Your task to perform on an android device: Open Amazon Image 0: 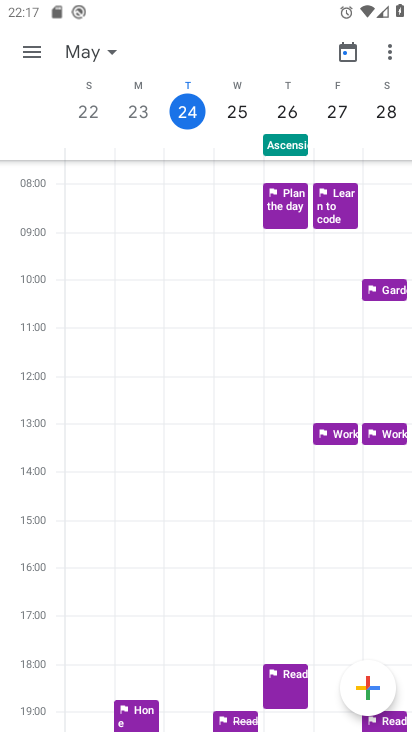
Step 0: press home button
Your task to perform on an android device: Open Amazon Image 1: 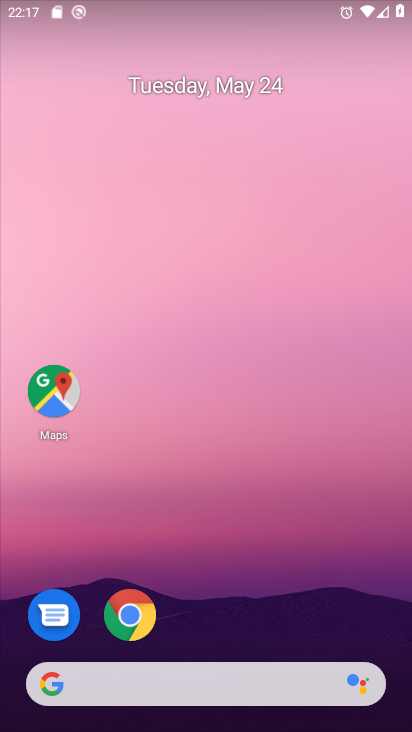
Step 1: click (164, 622)
Your task to perform on an android device: Open Amazon Image 2: 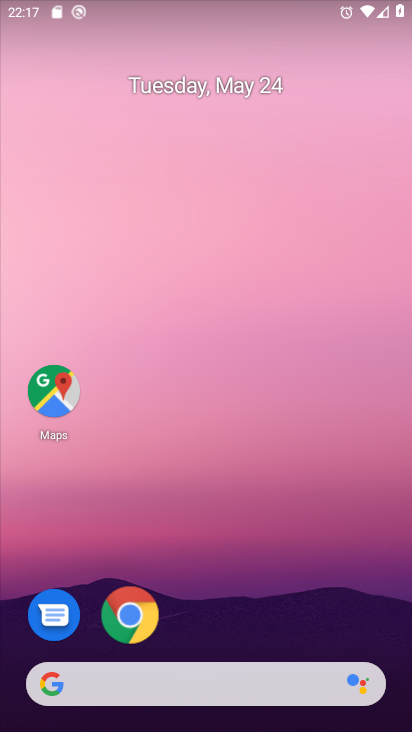
Step 2: drag from (184, 574) to (231, 433)
Your task to perform on an android device: Open Amazon Image 3: 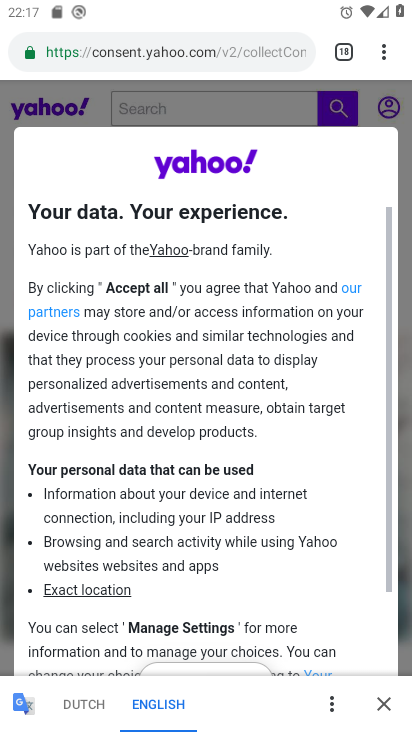
Step 3: click (373, 49)
Your task to perform on an android device: Open Amazon Image 4: 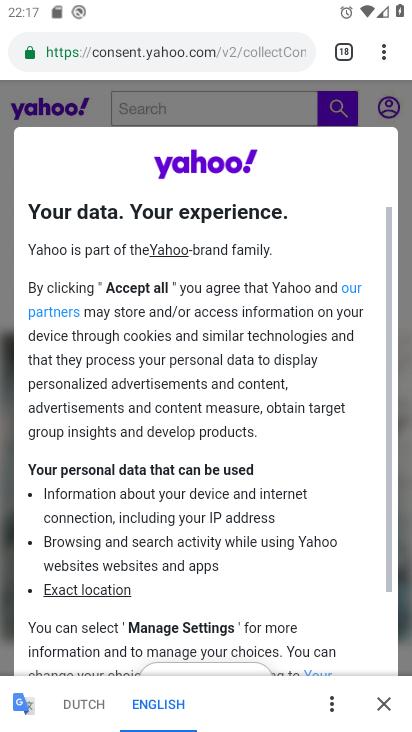
Step 4: click (377, 47)
Your task to perform on an android device: Open Amazon Image 5: 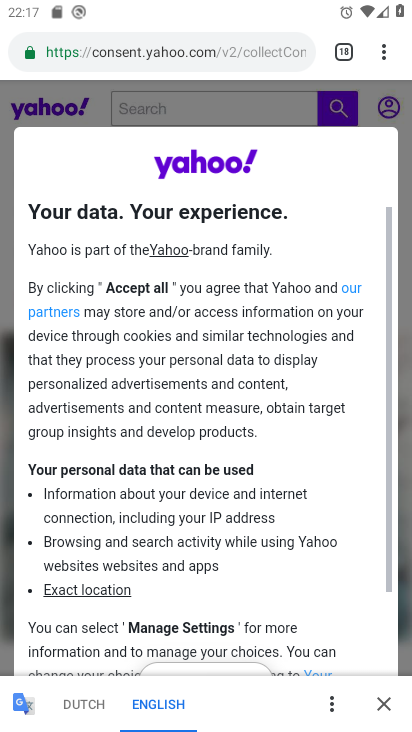
Step 5: click (380, 53)
Your task to perform on an android device: Open Amazon Image 6: 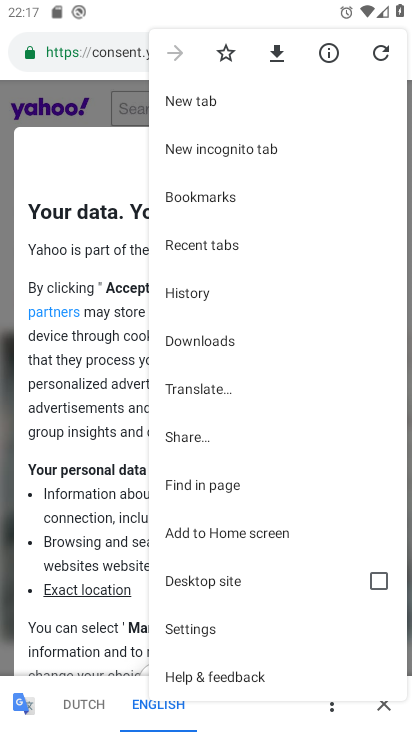
Step 6: click (238, 107)
Your task to perform on an android device: Open Amazon Image 7: 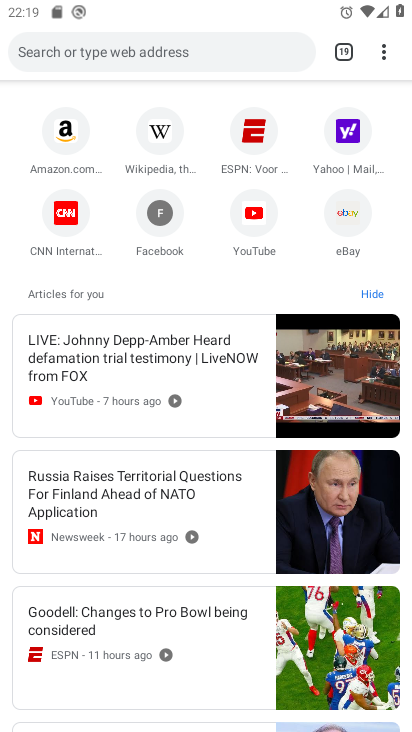
Step 7: click (70, 129)
Your task to perform on an android device: Open Amazon Image 8: 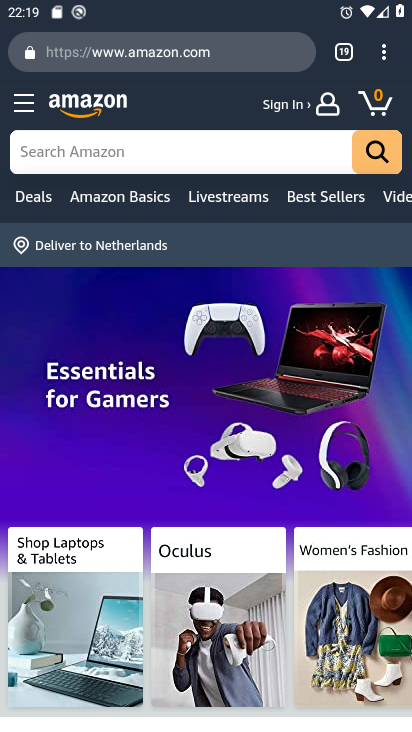
Step 8: task complete